Your task to perform on an android device: Go to wifi settings Image 0: 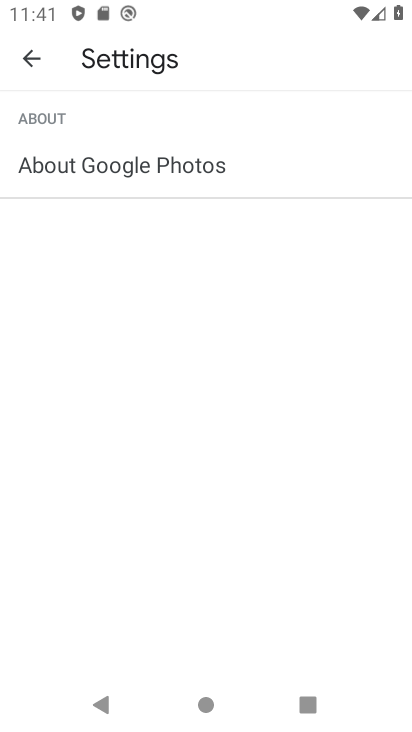
Step 0: click (36, 53)
Your task to perform on an android device: Go to wifi settings Image 1: 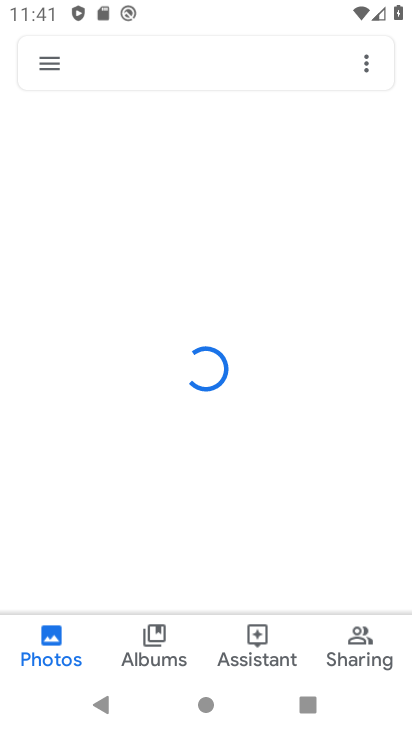
Step 1: press back button
Your task to perform on an android device: Go to wifi settings Image 2: 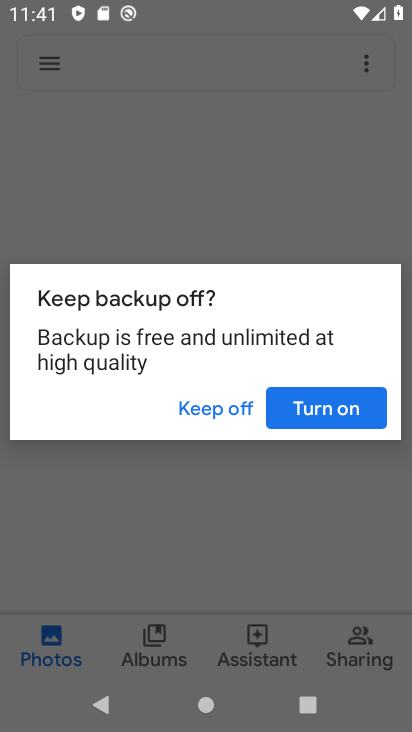
Step 2: click (203, 398)
Your task to perform on an android device: Go to wifi settings Image 3: 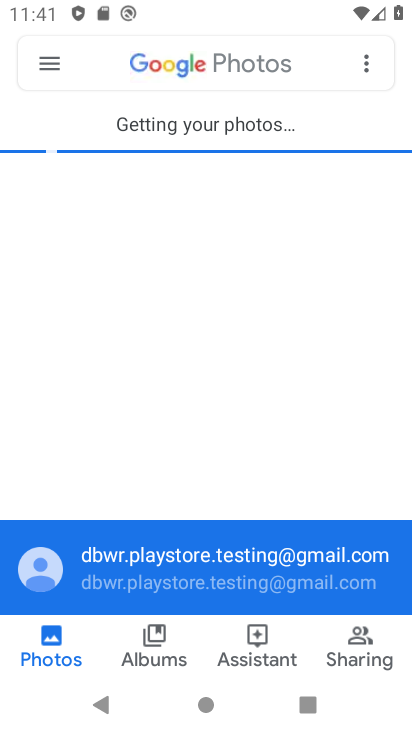
Step 3: press home button
Your task to perform on an android device: Go to wifi settings Image 4: 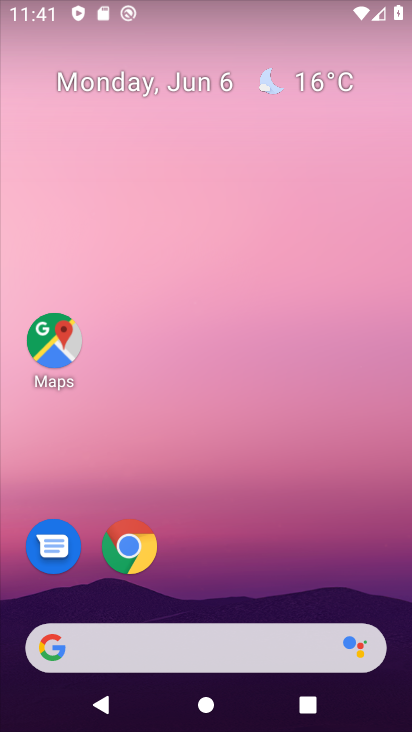
Step 4: drag from (244, 680) to (152, 211)
Your task to perform on an android device: Go to wifi settings Image 5: 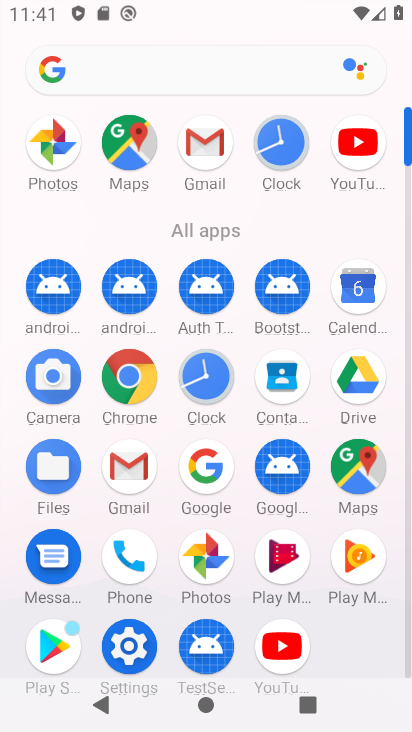
Step 5: click (130, 641)
Your task to perform on an android device: Go to wifi settings Image 6: 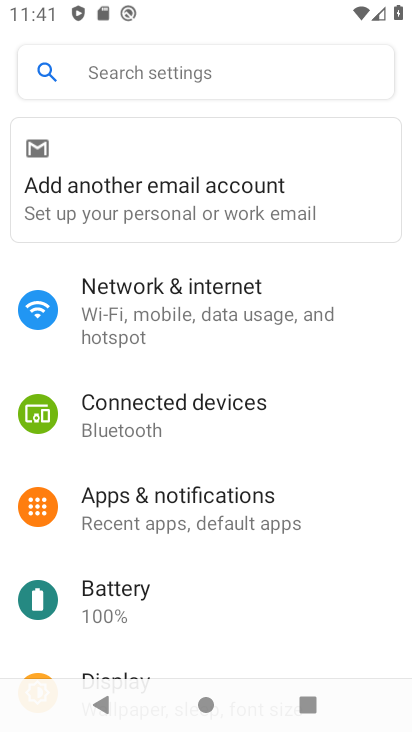
Step 6: click (209, 313)
Your task to perform on an android device: Go to wifi settings Image 7: 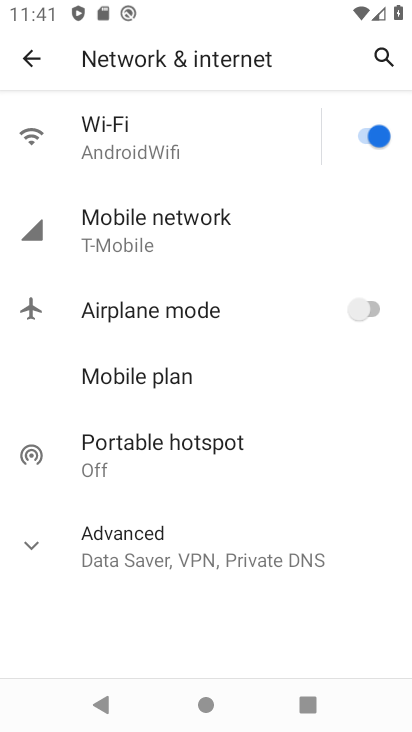
Step 7: task complete